Your task to perform on an android device: turn off location history Image 0: 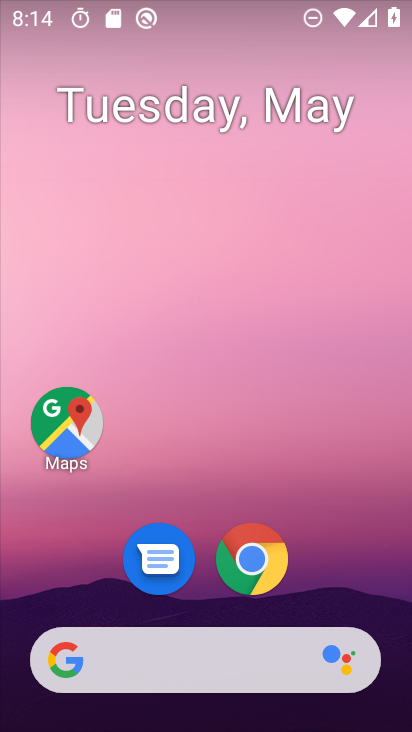
Step 0: drag from (366, 303) to (282, 46)
Your task to perform on an android device: turn off location history Image 1: 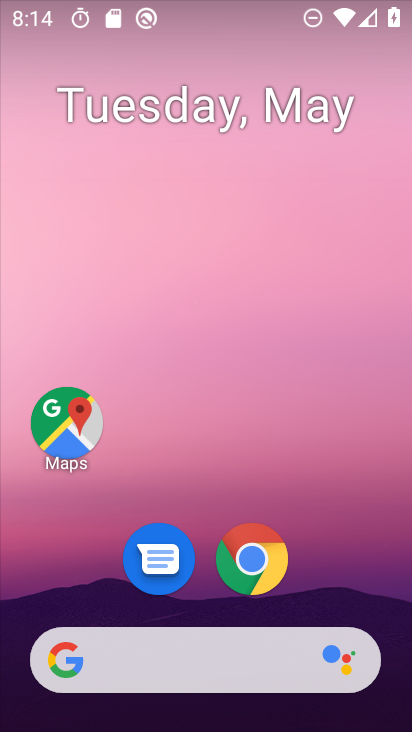
Step 1: drag from (384, 645) to (244, 57)
Your task to perform on an android device: turn off location history Image 2: 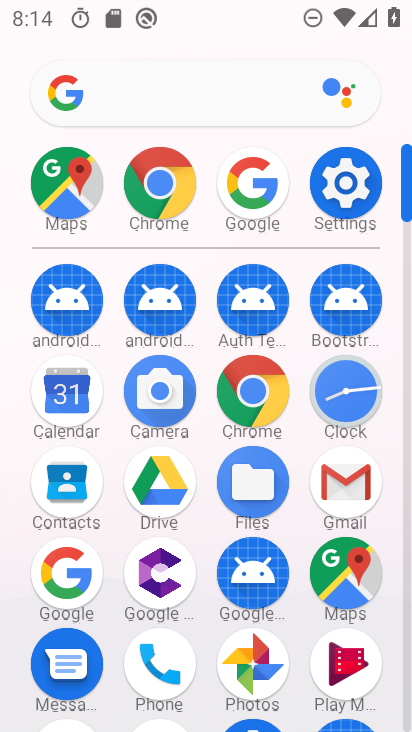
Step 2: click (339, 177)
Your task to perform on an android device: turn off location history Image 3: 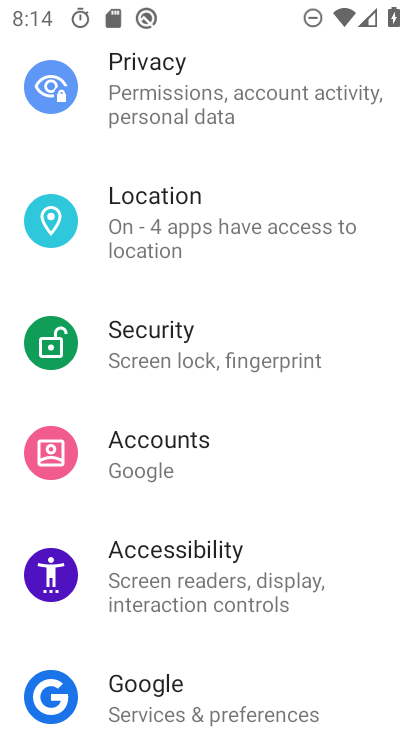
Step 3: click (275, 220)
Your task to perform on an android device: turn off location history Image 4: 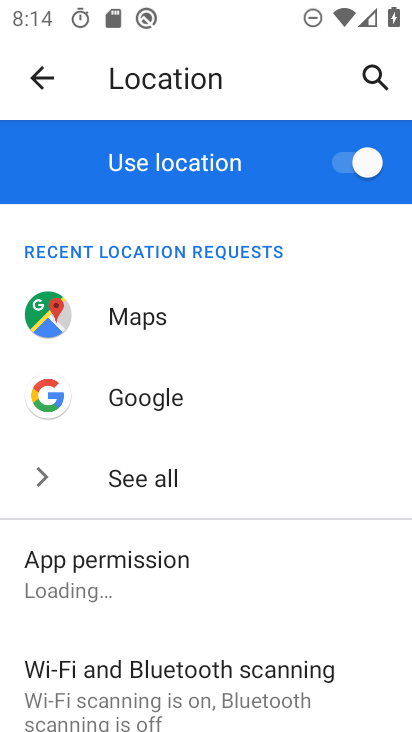
Step 4: drag from (220, 675) to (238, 248)
Your task to perform on an android device: turn off location history Image 5: 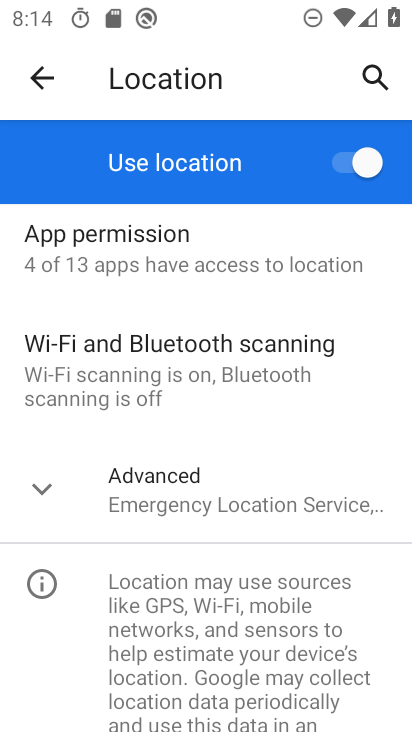
Step 5: click (194, 501)
Your task to perform on an android device: turn off location history Image 6: 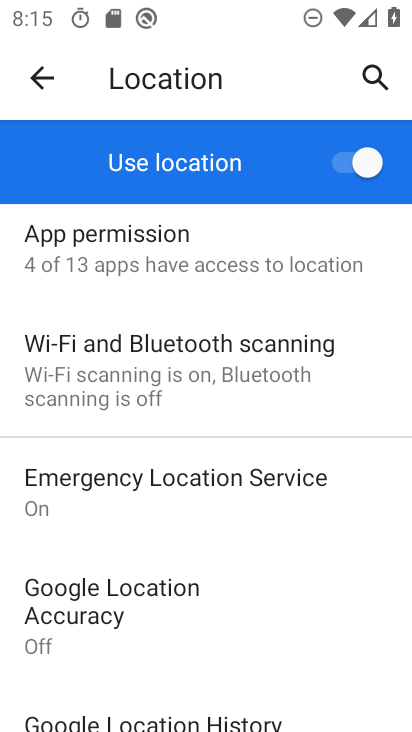
Step 6: drag from (160, 670) to (168, 425)
Your task to perform on an android device: turn off location history Image 7: 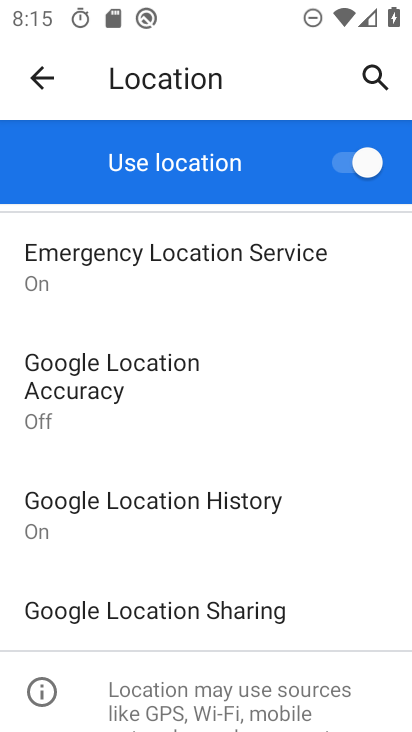
Step 7: click (217, 501)
Your task to perform on an android device: turn off location history Image 8: 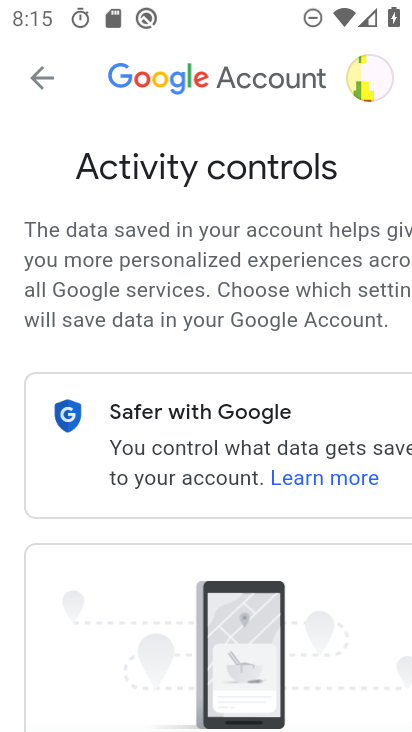
Step 8: drag from (333, 646) to (176, 67)
Your task to perform on an android device: turn off location history Image 9: 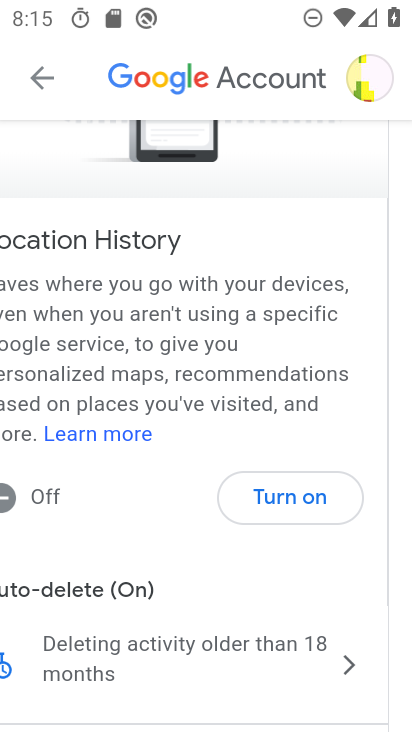
Step 9: click (320, 495)
Your task to perform on an android device: turn off location history Image 10: 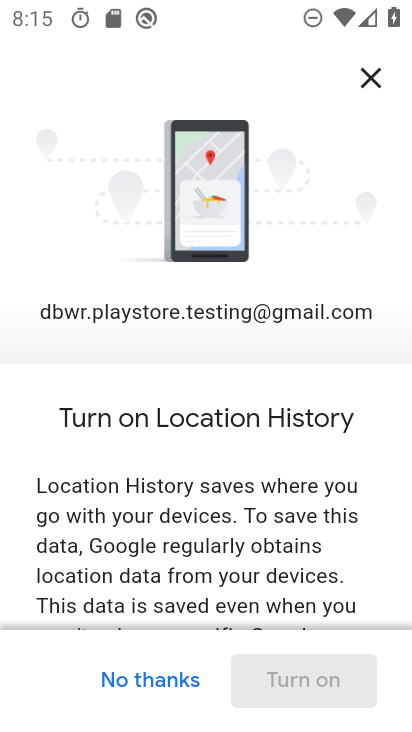
Step 10: task complete